Your task to perform on an android device: Go to Amazon Image 0: 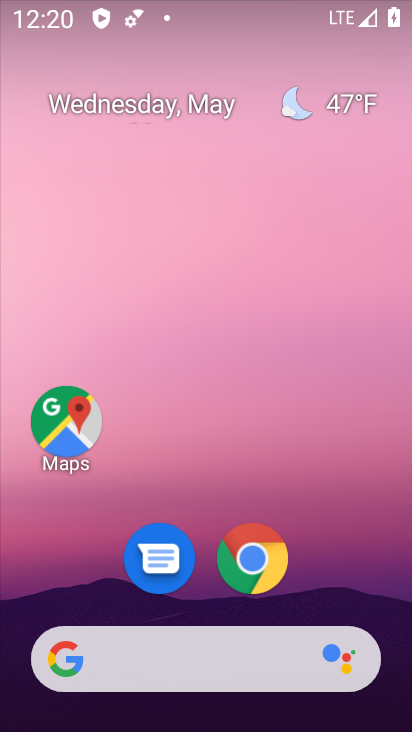
Step 0: click (249, 560)
Your task to perform on an android device: Go to Amazon Image 1: 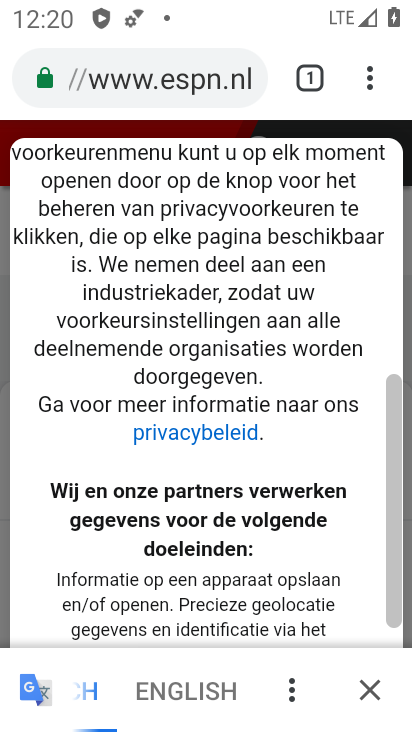
Step 1: click (373, 84)
Your task to perform on an android device: Go to Amazon Image 2: 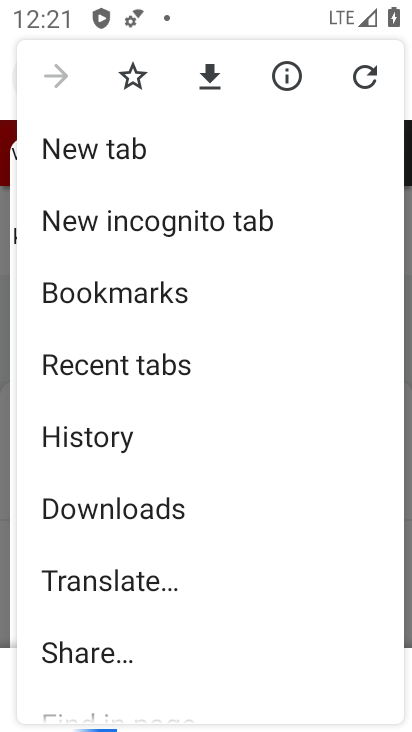
Step 2: click (85, 150)
Your task to perform on an android device: Go to Amazon Image 3: 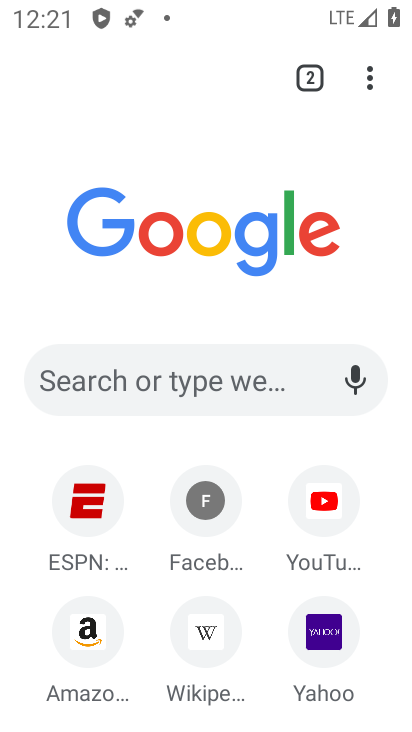
Step 3: click (97, 638)
Your task to perform on an android device: Go to Amazon Image 4: 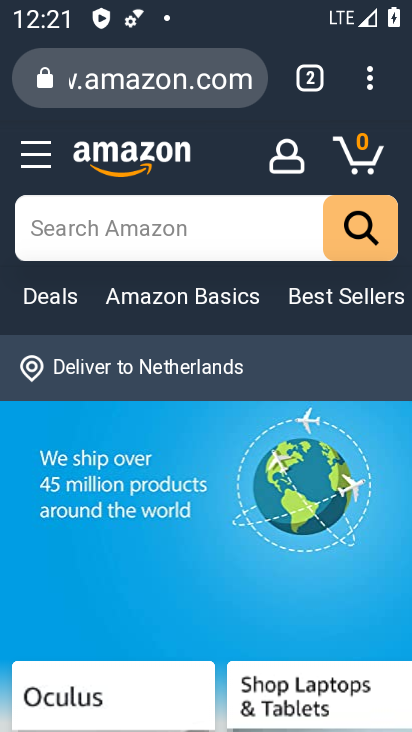
Step 4: task complete